Your task to perform on an android device: turn off airplane mode Image 0: 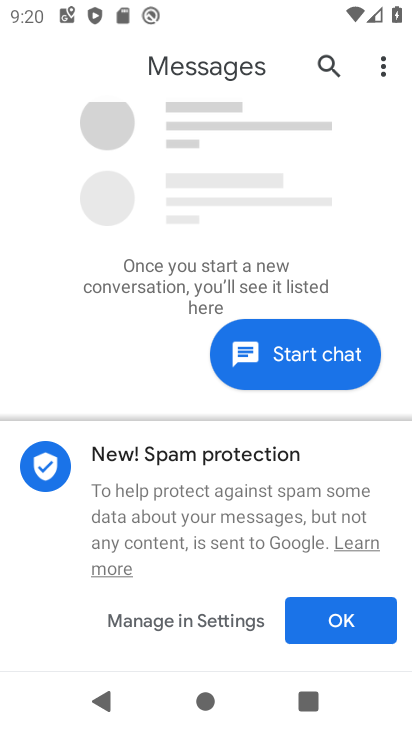
Step 0: press home button
Your task to perform on an android device: turn off airplane mode Image 1: 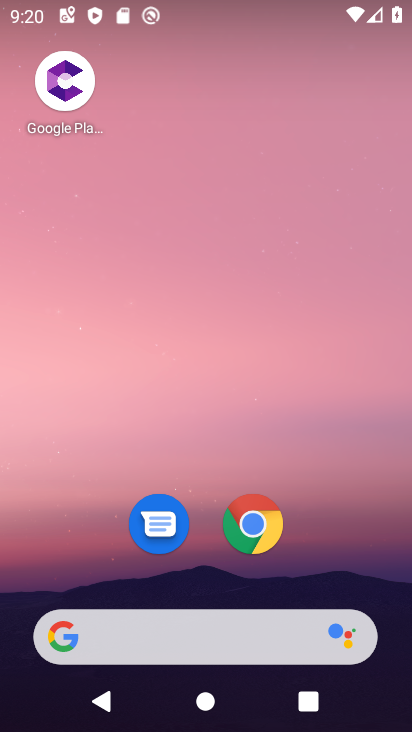
Step 1: drag from (173, 639) to (362, 1)
Your task to perform on an android device: turn off airplane mode Image 2: 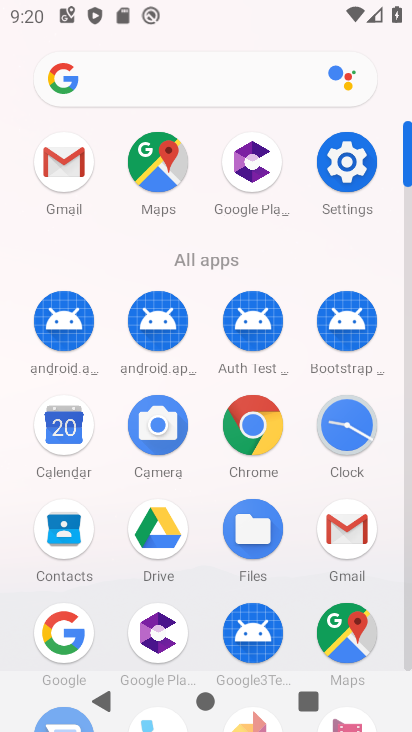
Step 2: click (338, 158)
Your task to perform on an android device: turn off airplane mode Image 3: 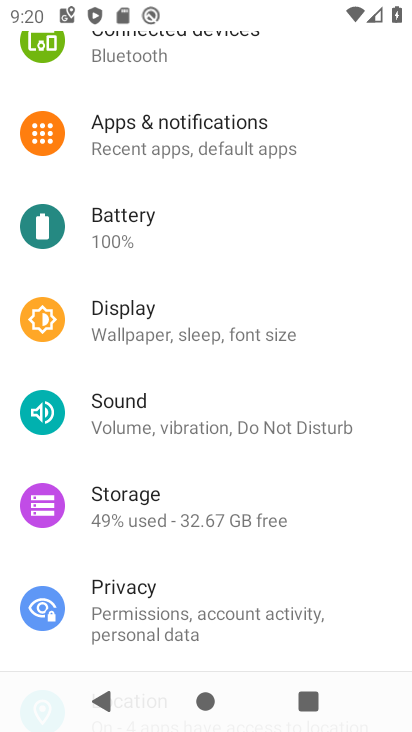
Step 3: drag from (298, 120) to (317, 457)
Your task to perform on an android device: turn off airplane mode Image 4: 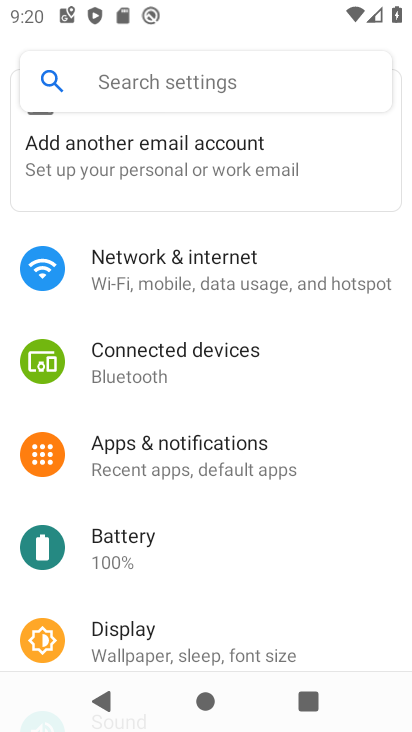
Step 4: click (241, 280)
Your task to perform on an android device: turn off airplane mode Image 5: 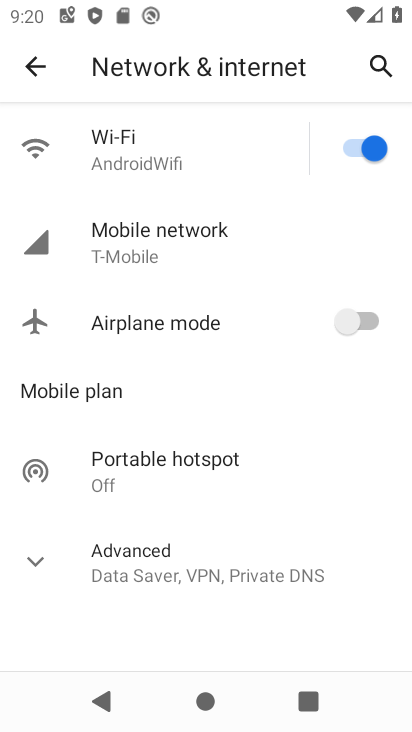
Step 5: task complete